Your task to perform on an android device: turn on priority inbox in the gmail app Image 0: 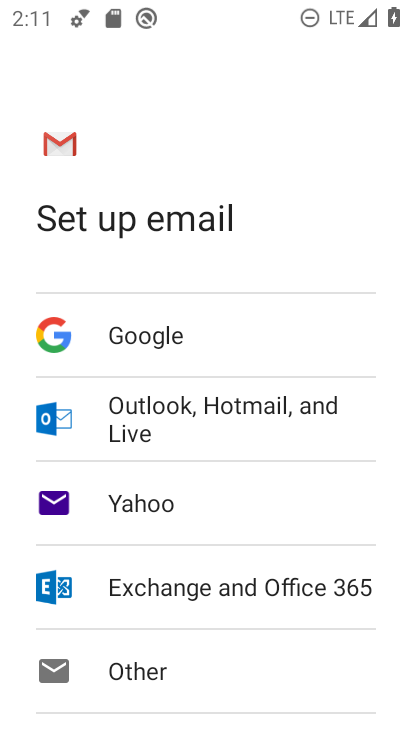
Step 0: press home button
Your task to perform on an android device: turn on priority inbox in the gmail app Image 1: 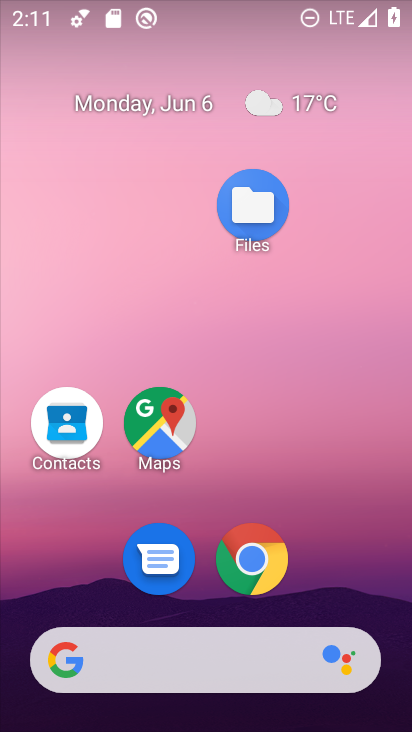
Step 1: drag from (229, 689) to (247, 185)
Your task to perform on an android device: turn on priority inbox in the gmail app Image 2: 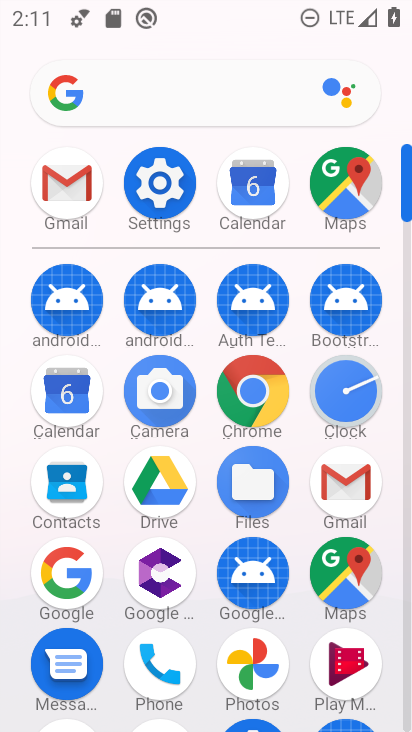
Step 2: click (349, 497)
Your task to perform on an android device: turn on priority inbox in the gmail app Image 3: 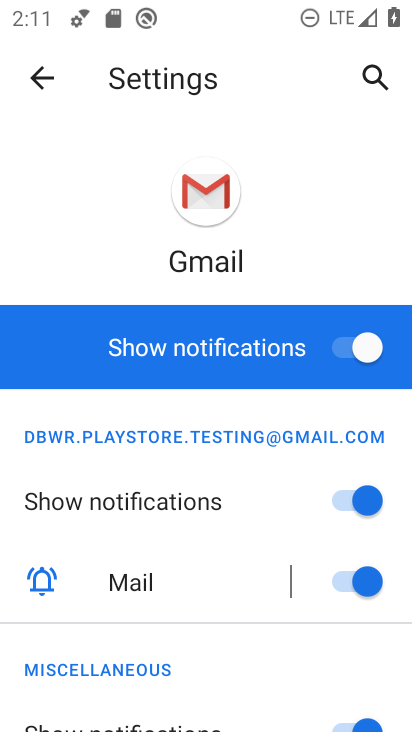
Step 3: click (37, 89)
Your task to perform on an android device: turn on priority inbox in the gmail app Image 4: 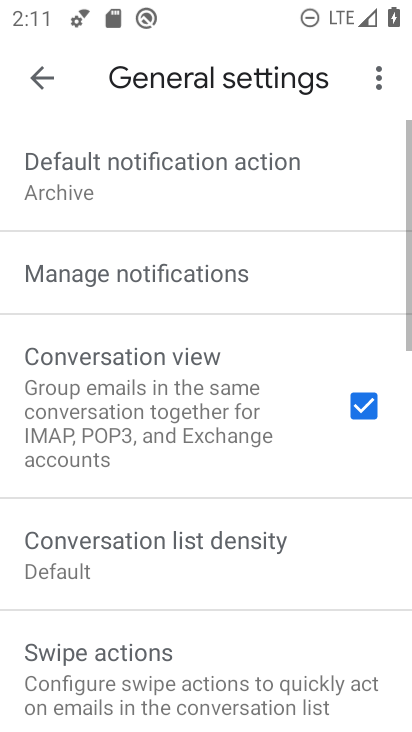
Step 4: click (39, 79)
Your task to perform on an android device: turn on priority inbox in the gmail app Image 5: 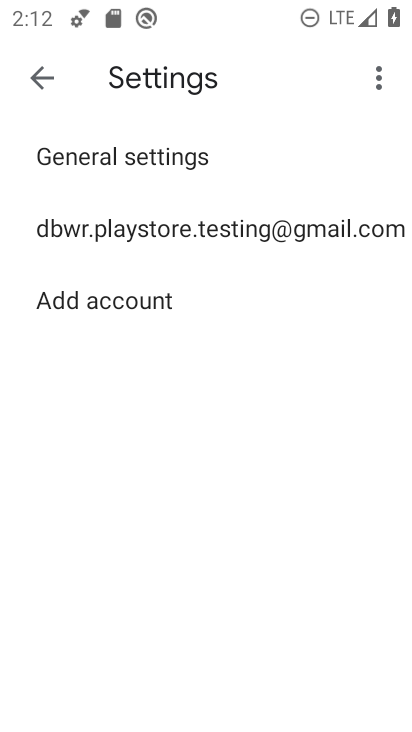
Step 5: click (127, 231)
Your task to perform on an android device: turn on priority inbox in the gmail app Image 6: 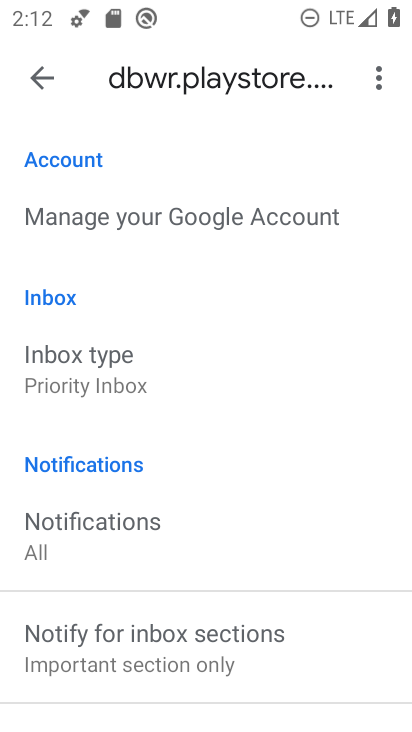
Step 6: task complete